Your task to perform on an android device: Go to eBay Image 0: 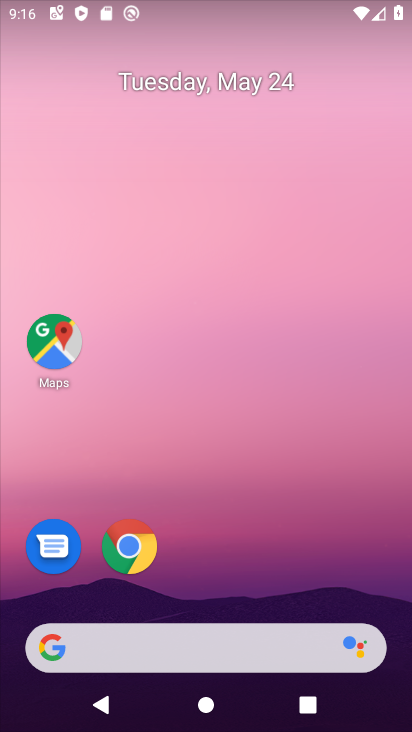
Step 0: drag from (230, 625) to (211, 248)
Your task to perform on an android device: Go to eBay Image 1: 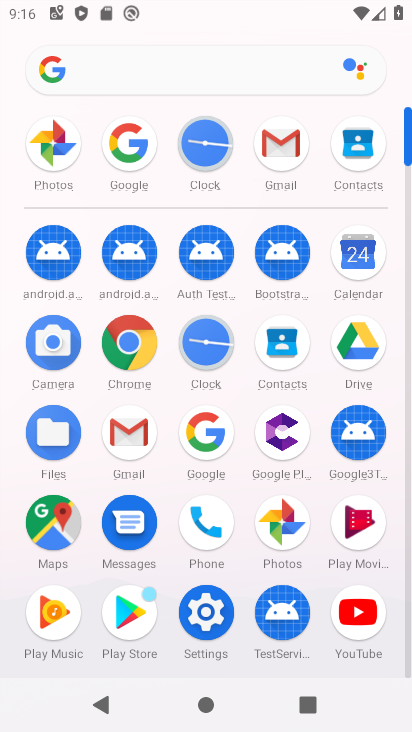
Step 1: click (128, 353)
Your task to perform on an android device: Go to eBay Image 2: 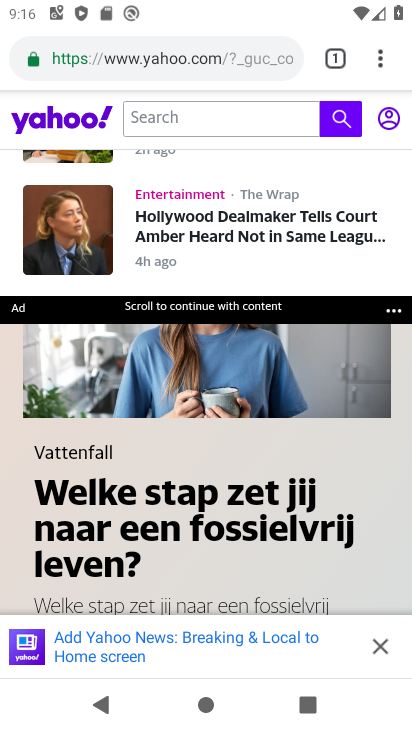
Step 2: click (335, 59)
Your task to perform on an android device: Go to eBay Image 3: 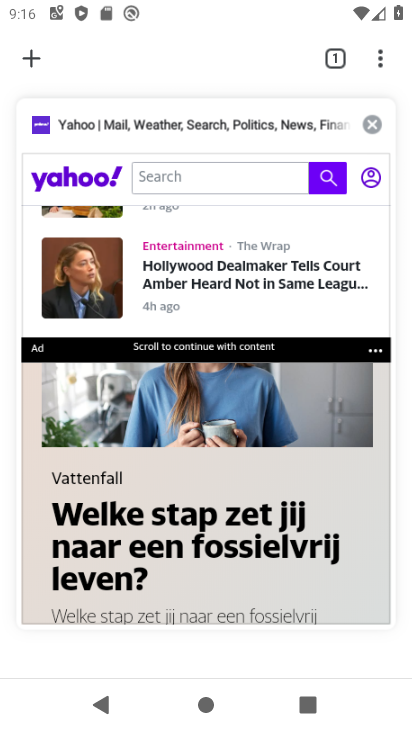
Step 3: click (379, 123)
Your task to perform on an android device: Go to eBay Image 4: 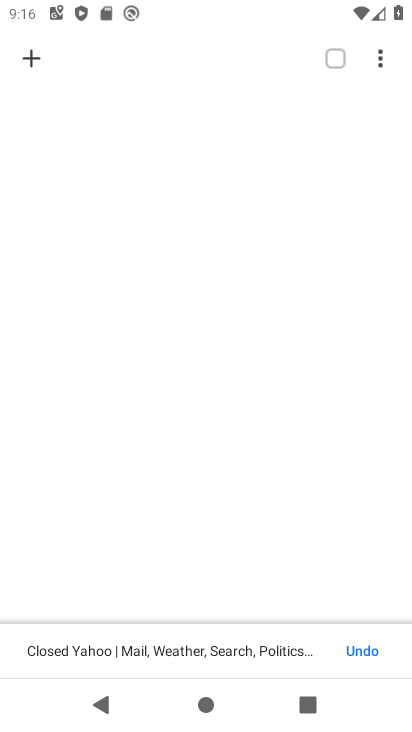
Step 4: click (31, 60)
Your task to perform on an android device: Go to eBay Image 5: 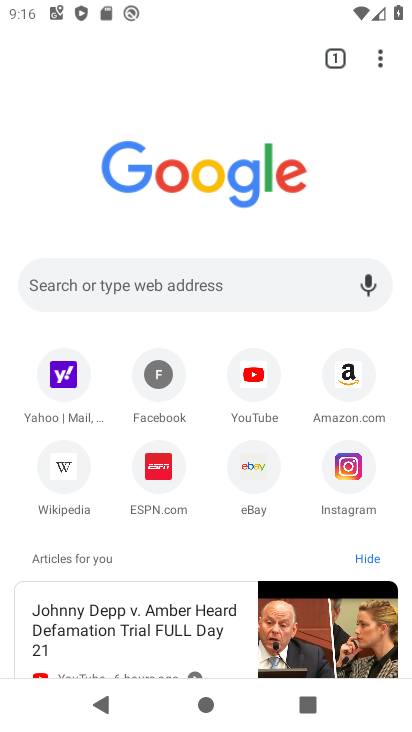
Step 5: click (254, 465)
Your task to perform on an android device: Go to eBay Image 6: 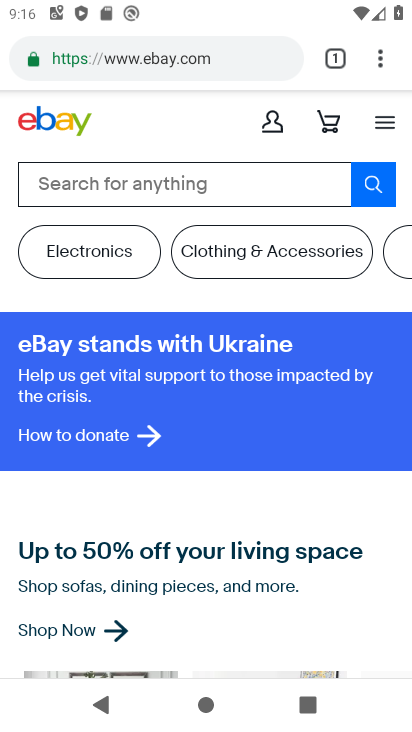
Step 6: task complete